Your task to perform on an android device: turn smart compose on in the gmail app Image 0: 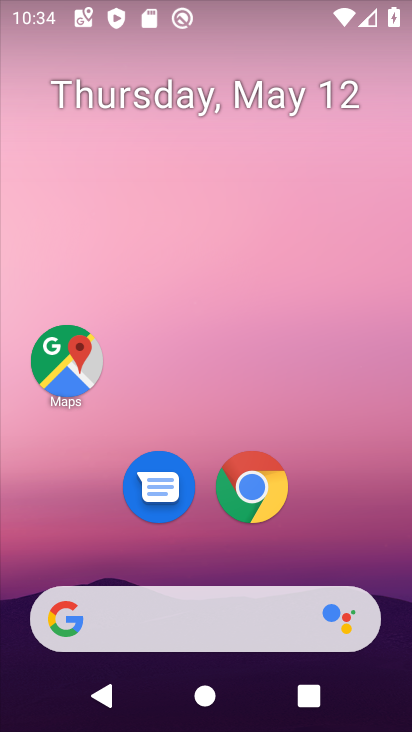
Step 0: drag from (12, 665) to (344, 192)
Your task to perform on an android device: turn smart compose on in the gmail app Image 1: 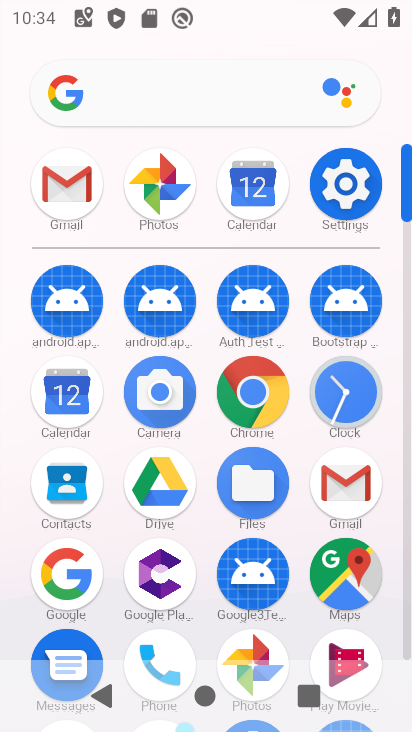
Step 1: click (349, 503)
Your task to perform on an android device: turn smart compose on in the gmail app Image 2: 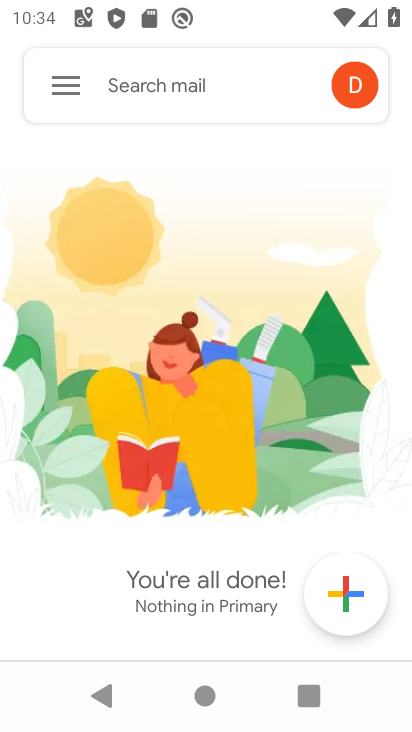
Step 2: click (76, 78)
Your task to perform on an android device: turn smart compose on in the gmail app Image 3: 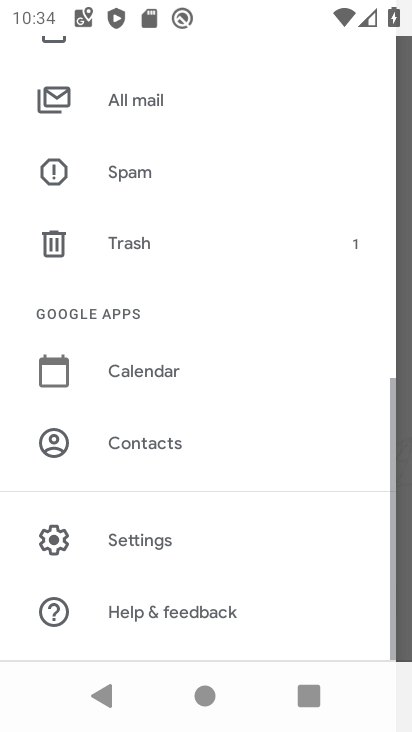
Step 3: click (145, 535)
Your task to perform on an android device: turn smart compose on in the gmail app Image 4: 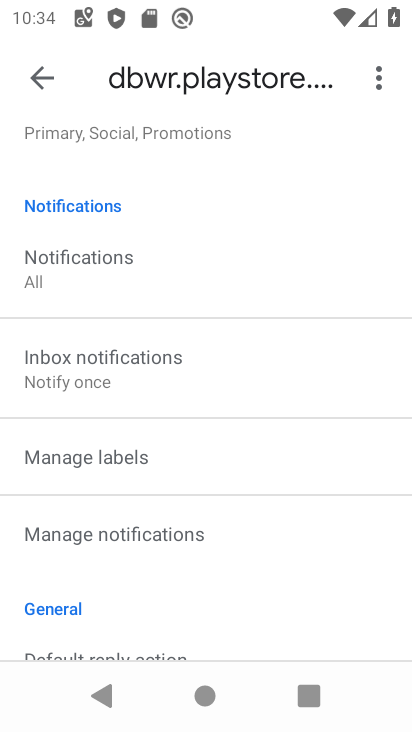
Step 4: press back button
Your task to perform on an android device: turn smart compose on in the gmail app Image 5: 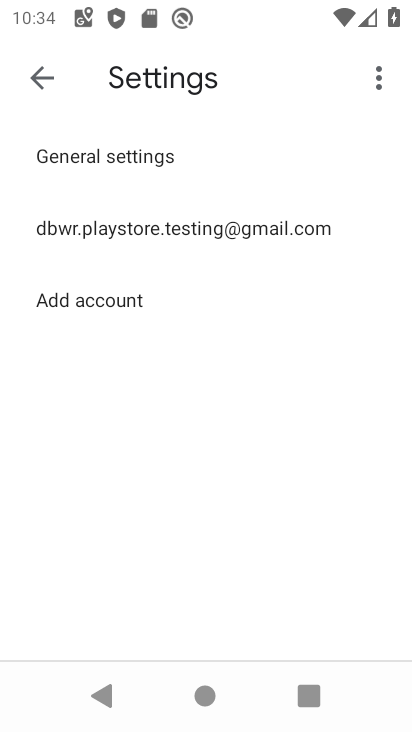
Step 5: click (124, 231)
Your task to perform on an android device: turn smart compose on in the gmail app Image 6: 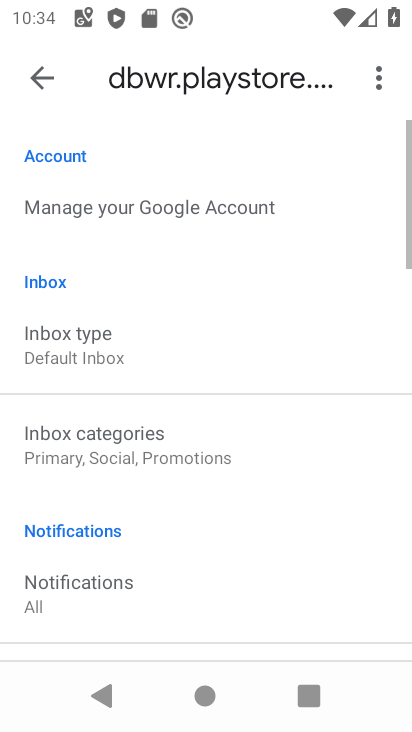
Step 6: drag from (12, 585) to (295, 82)
Your task to perform on an android device: turn smart compose on in the gmail app Image 7: 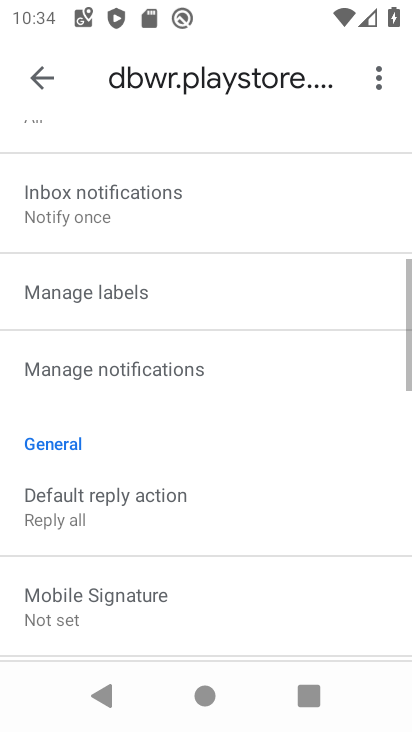
Step 7: drag from (83, 638) to (319, 124)
Your task to perform on an android device: turn smart compose on in the gmail app Image 8: 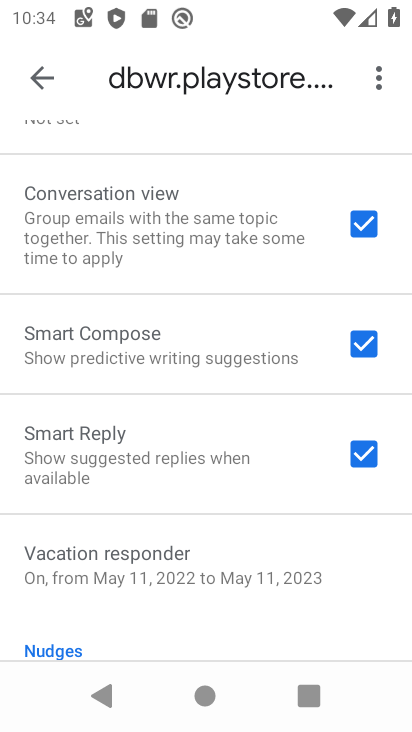
Step 8: click (360, 347)
Your task to perform on an android device: turn smart compose on in the gmail app Image 9: 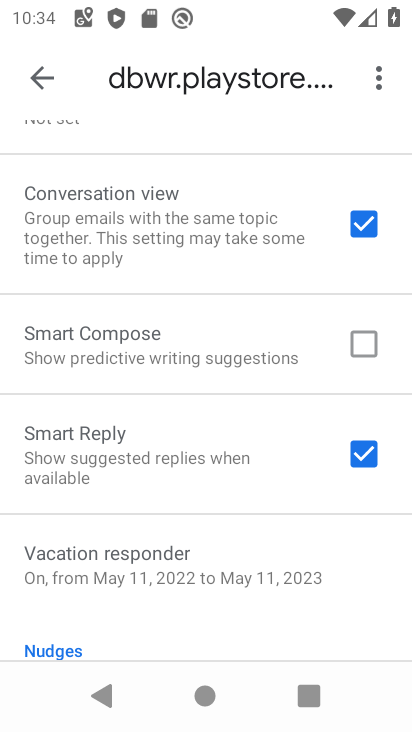
Step 9: click (359, 347)
Your task to perform on an android device: turn smart compose on in the gmail app Image 10: 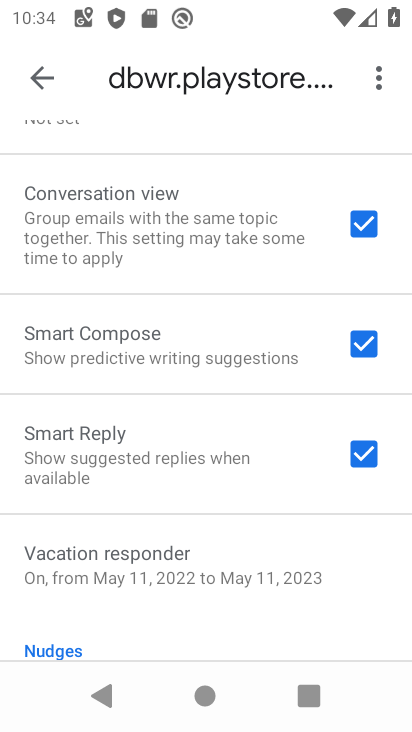
Step 10: task complete